Your task to perform on an android device: Open Wikipedia Image 0: 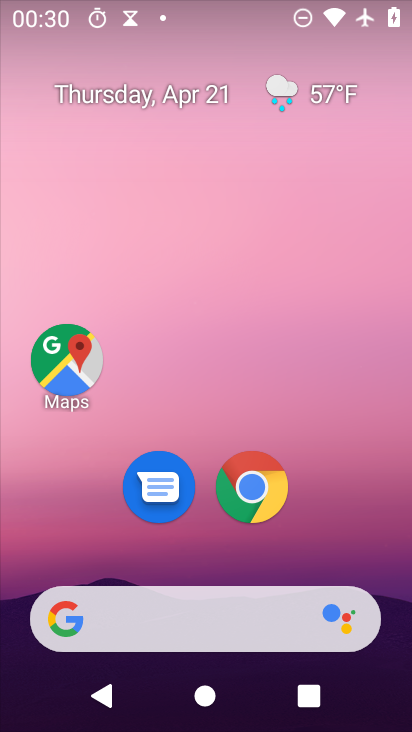
Step 0: drag from (369, 536) to (254, 31)
Your task to perform on an android device: Open Wikipedia Image 1: 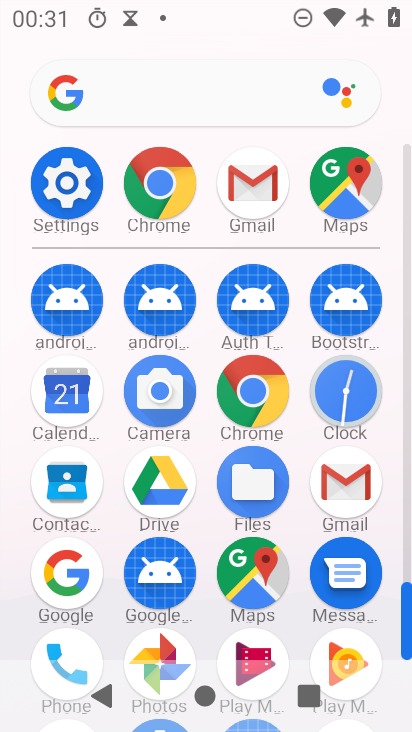
Step 1: click (153, 181)
Your task to perform on an android device: Open Wikipedia Image 2: 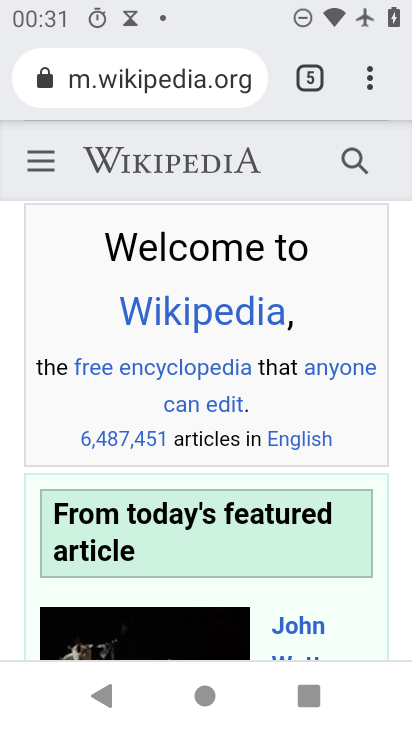
Step 2: task complete